Your task to perform on an android device: What's the weather going to be this weekend? Image 0: 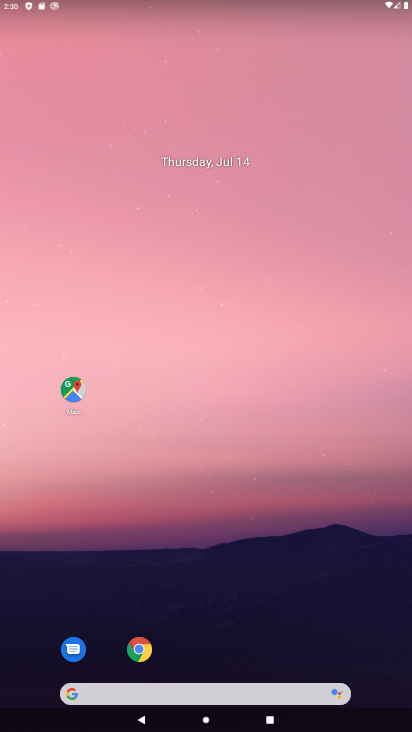
Step 0: click (172, 694)
Your task to perform on an android device: What's the weather going to be this weekend? Image 1: 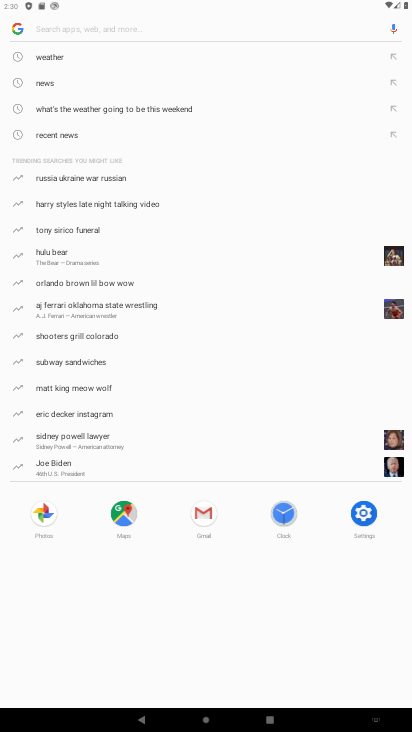
Step 1: click (66, 60)
Your task to perform on an android device: What's the weather going to be this weekend? Image 2: 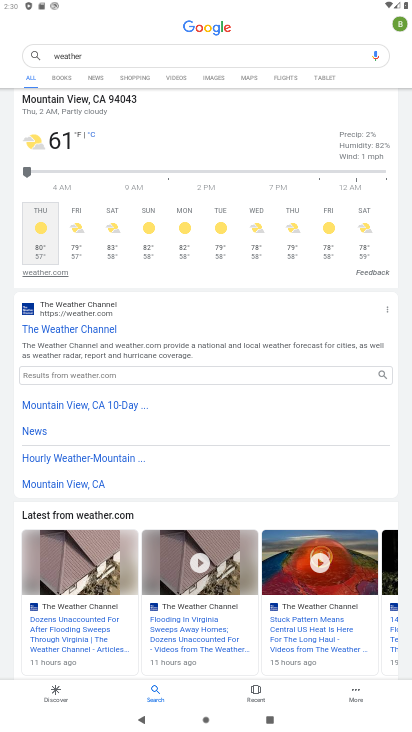
Step 2: task complete